Your task to perform on an android device: turn on javascript in the chrome app Image 0: 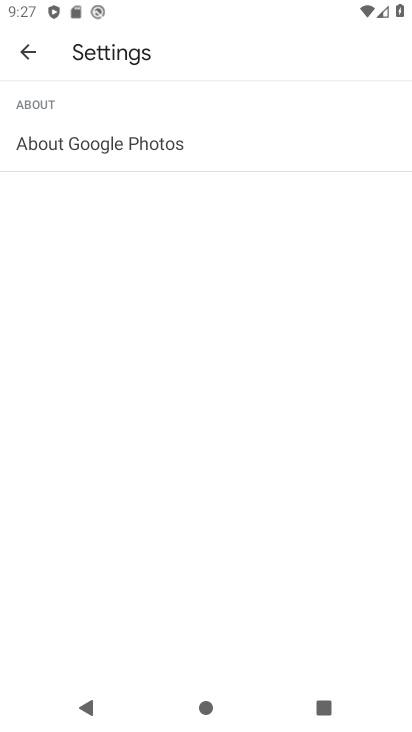
Step 0: press home button
Your task to perform on an android device: turn on javascript in the chrome app Image 1: 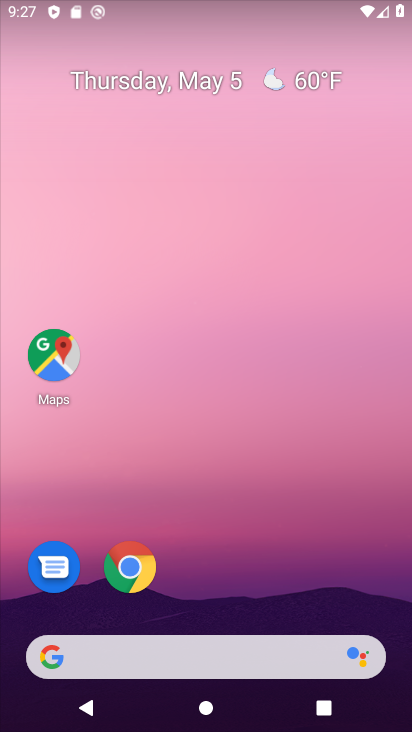
Step 1: click (124, 572)
Your task to perform on an android device: turn on javascript in the chrome app Image 2: 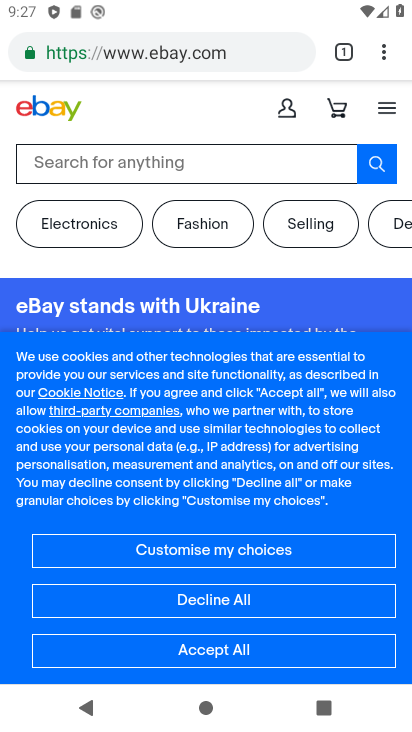
Step 2: click (387, 49)
Your task to perform on an android device: turn on javascript in the chrome app Image 3: 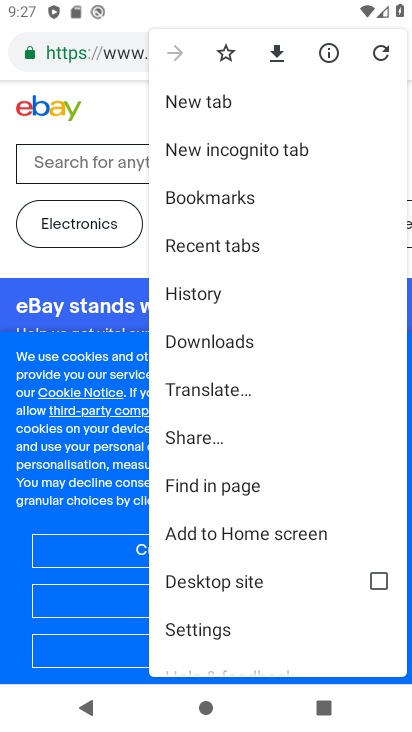
Step 3: click (200, 629)
Your task to perform on an android device: turn on javascript in the chrome app Image 4: 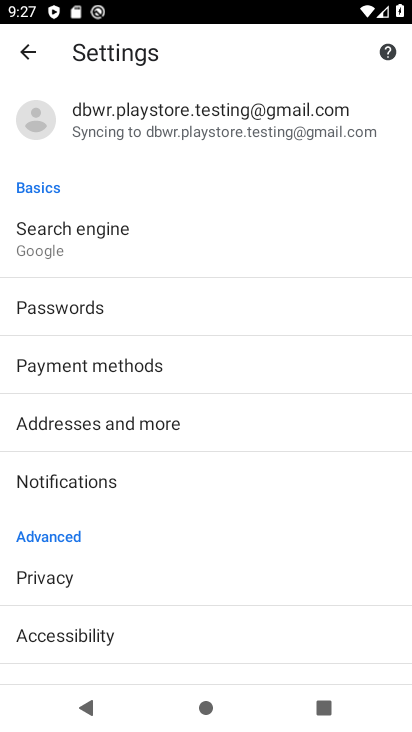
Step 4: drag from (119, 613) to (178, 333)
Your task to perform on an android device: turn on javascript in the chrome app Image 5: 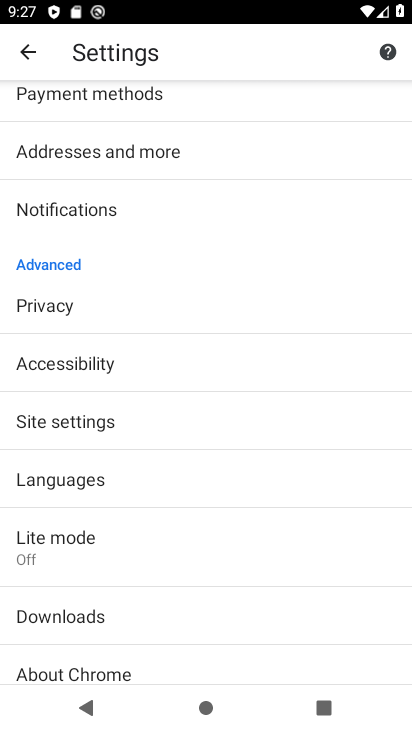
Step 5: click (96, 429)
Your task to perform on an android device: turn on javascript in the chrome app Image 6: 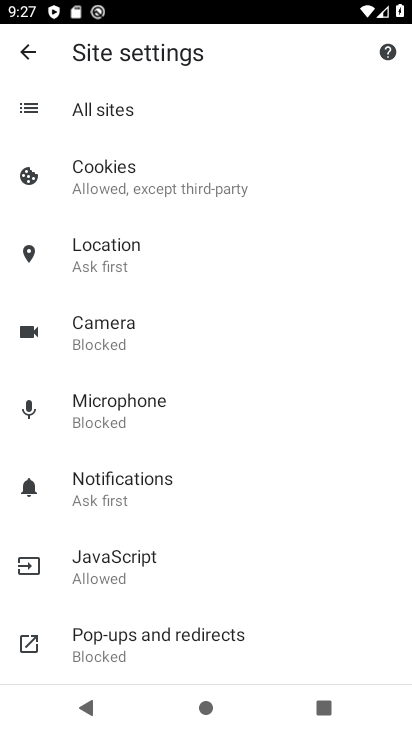
Step 6: click (168, 572)
Your task to perform on an android device: turn on javascript in the chrome app Image 7: 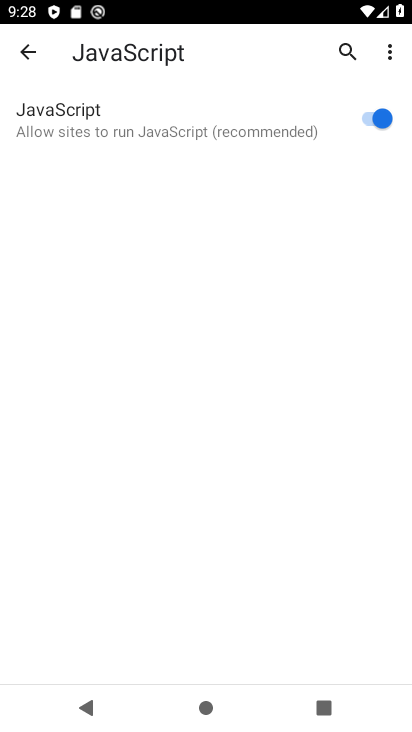
Step 7: task complete